Your task to perform on an android device: Open the map Image 0: 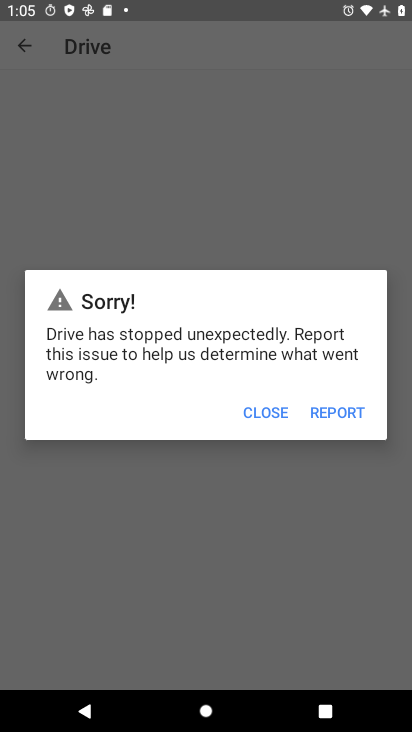
Step 0: press home button
Your task to perform on an android device: Open the map Image 1: 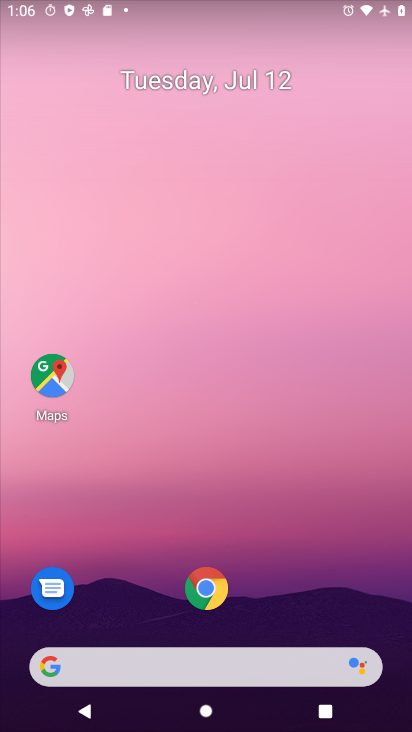
Step 1: click (54, 379)
Your task to perform on an android device: Open the map Image 2: 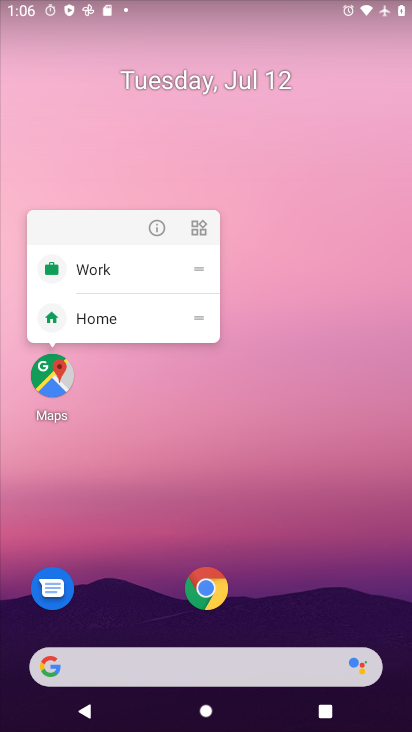
Step 2: click (54, 381)
Your task to perform on an android device: Open the map Image 3: 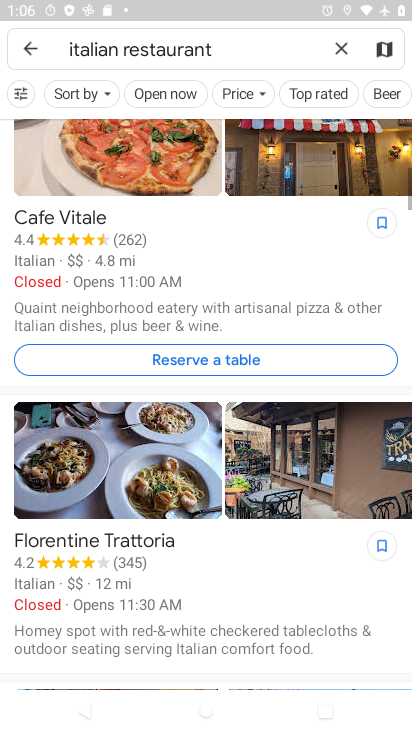
Step 3: click (27, 46)
Your task to perform on an android device: Open the map Image 4: 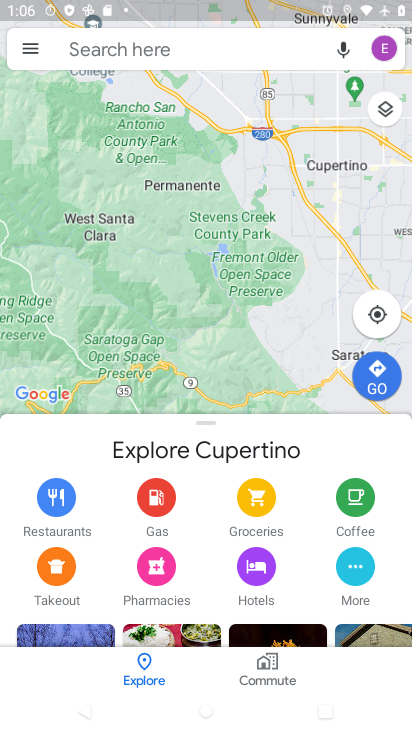
Step 4: task complete